Your task to perform on an android device: change alarm snooze length Image 0: 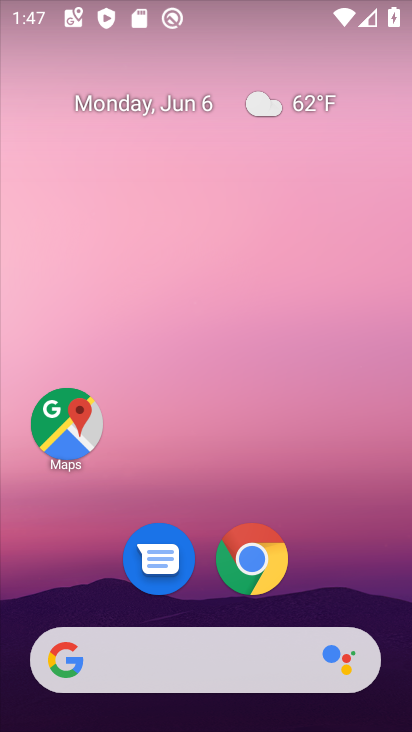
Step 0: drag from (64, 617) to (162, 179)
Your task to perform on an android device: change alarm snooze length Image 1: 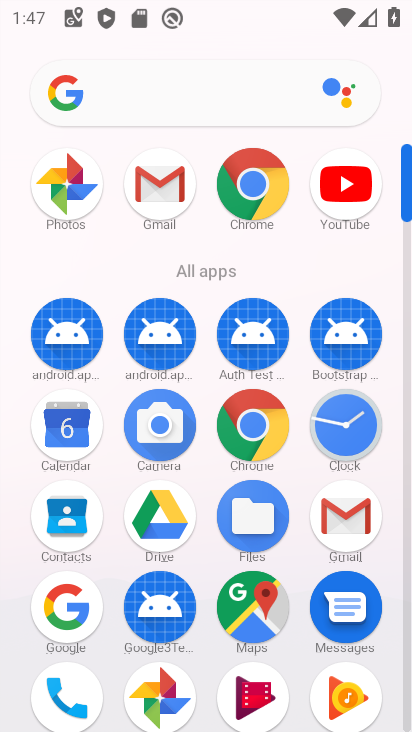
Step 1: click (344, 436)
Your task to perform on an android device: change alarm snooze length Image 2: 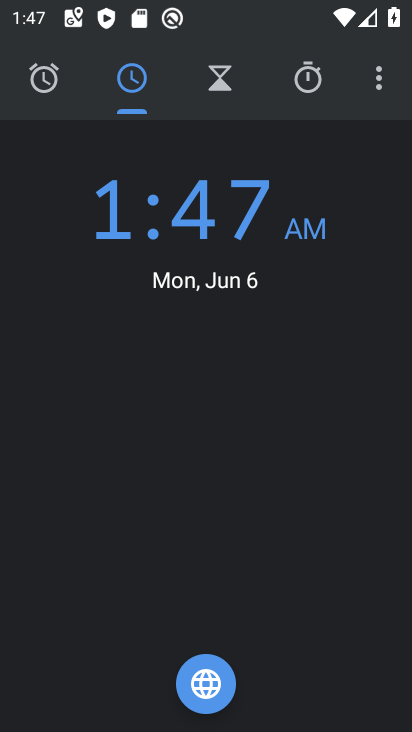
Step 2: click (391, 92)
Your task to perform on an android device: change alarm snooze length Image 3: 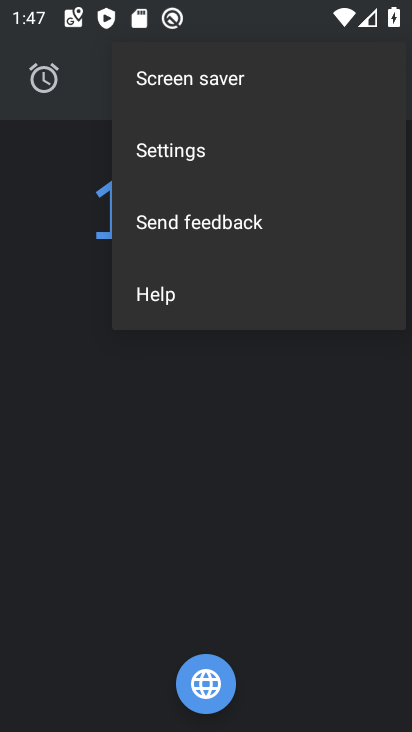
Step 3: click (264, 167)
Your task to perform on an android device: change alarm snooze length Image 4: 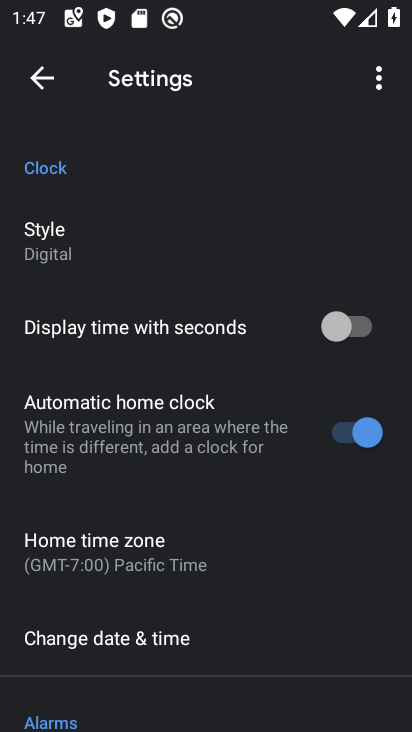
Step 4: drag from (221, 611) to (278, 239)
Your task to perform on an android device: change alarm snooze length Image 5: 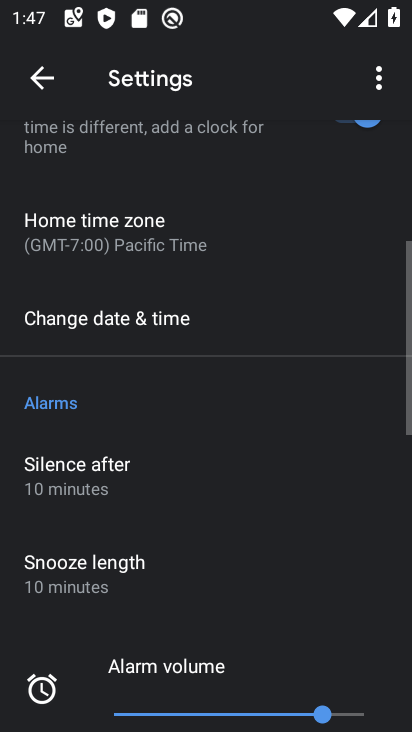
Step 5: drag from (193, 607) to (266, 256)
Your task to perform on an android device: change alarm snooze length Image 6: 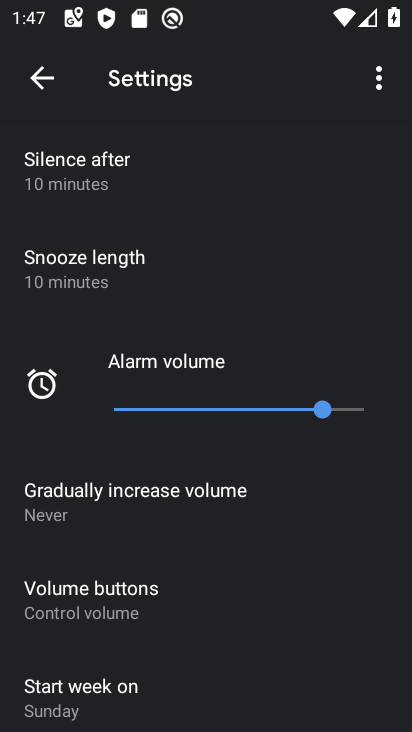
Step 6: click (205, 260)
Your task to perform on an android device: change alarm snooze length Image 7: 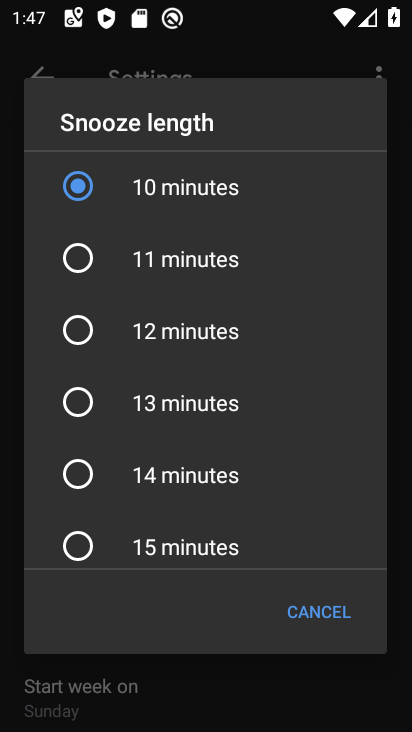
Step 7: click (217, 550)
Your task to perform on an android device: change alarm snooze length Image 8: 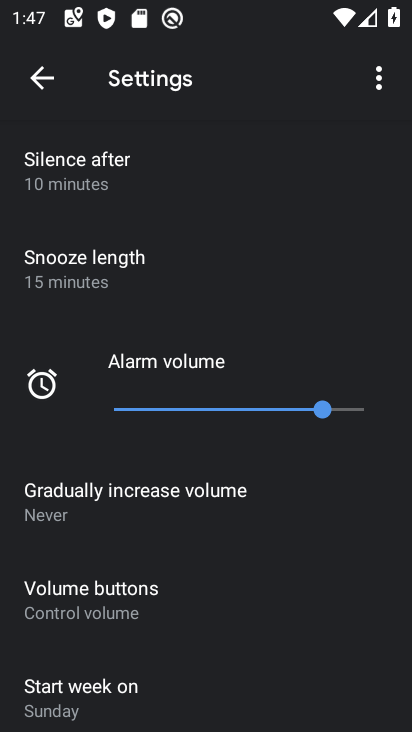
Step 8: task complete